Your task to perform on an android device: Open calendar and show me the first week of next month Image 0: 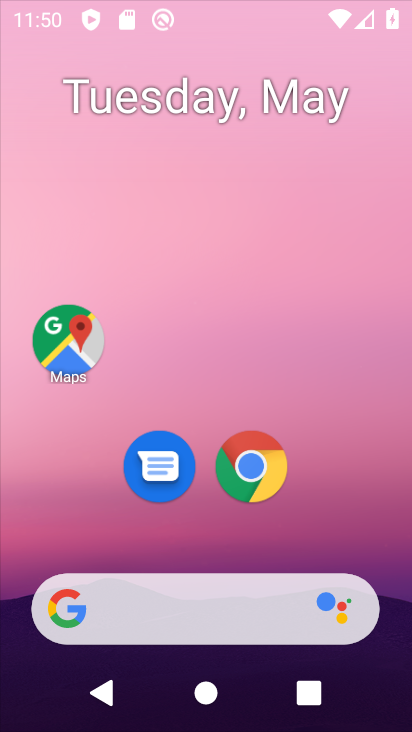
Step 0: press home button
Your task to perform on an android device: Open calendar and show me the first week of next month Image 1: 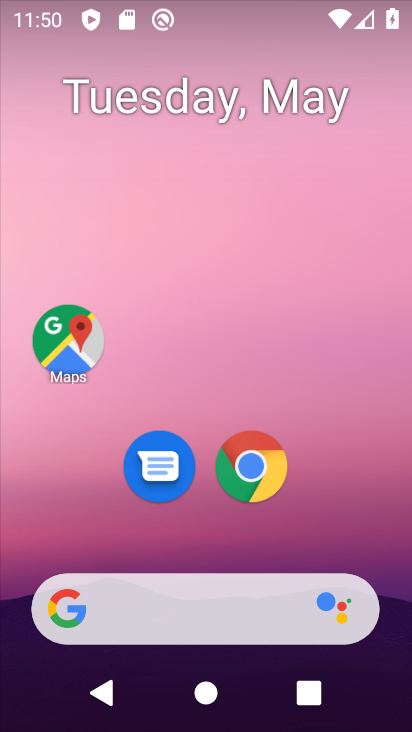
Step 1: drag from (209, 537) to (210, 55)
Your task to perform on an android device: Open calendar and show me the first week of next month Image 2: 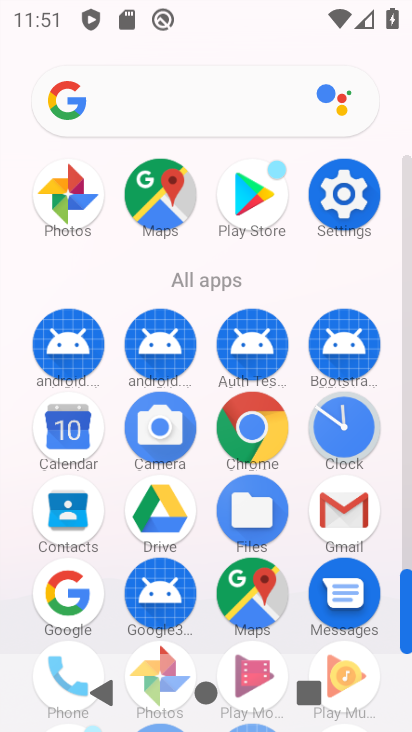
Step 2: click (67, 430)
Your task to perform on an android device: Open calendar and show me the first week of next month Image 3: 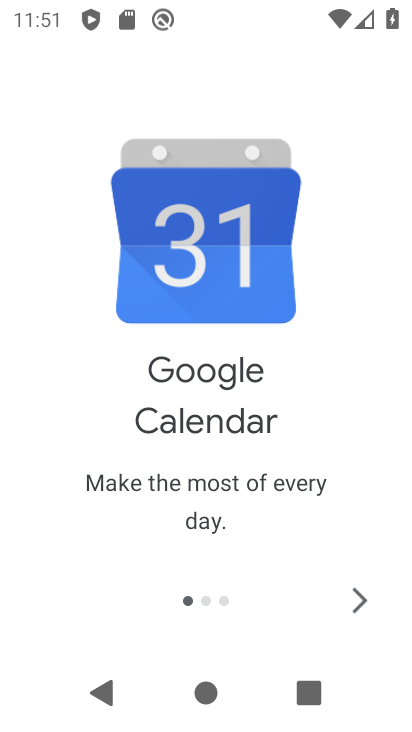
Step 3: click (351, 595)
Your task to perform on an android device: Open calendar and show me the first week of next month Image 4: 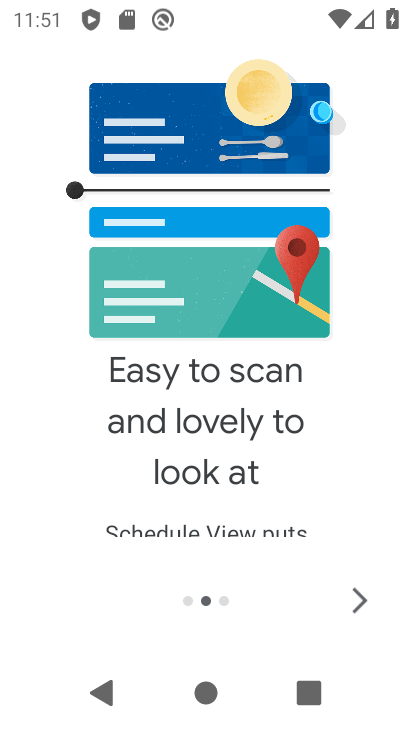
Step 4: click (348, 595)
Your task to perform on an android device: Open calendar and show me the first week of next month Image 5: 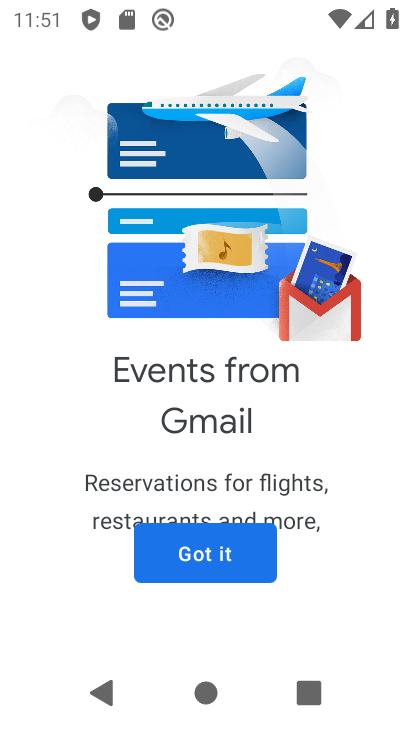
Step 5: click (214, 546)
Your task to perform on an android device: Open calendar and show me the first week of next month Image 6: 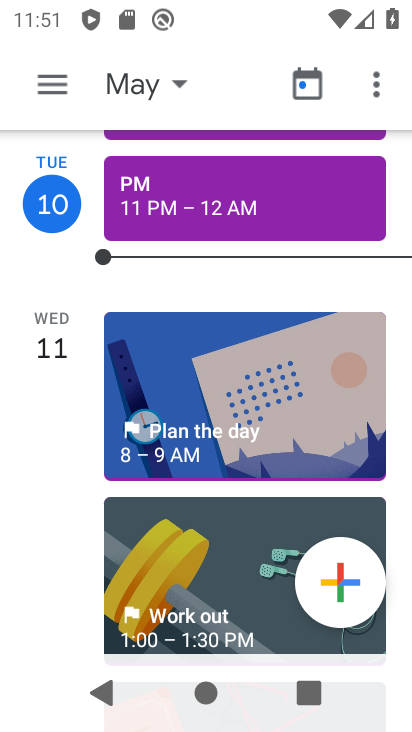
Step 6: click (58, 75)
Your task to perform on an android device: Open calendar and show me the first week of next month Image 7: 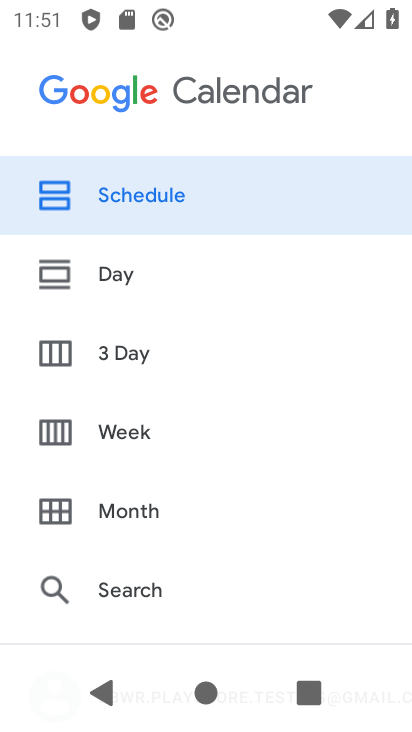
Step 7: click (94, 426)
Your task to perform on an android device: Open calendar and show me the first week of next month Image 8: 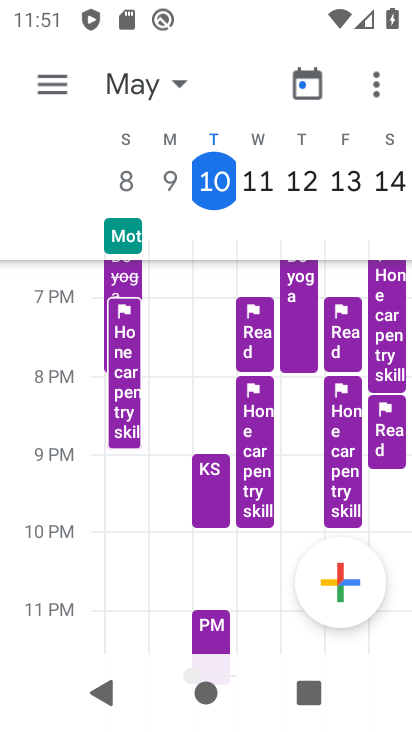
Step 8: drag from (385, 174) to (103, 200)
Your task to perform on an android device: Open calendar and show me the first week of next month Image 9: 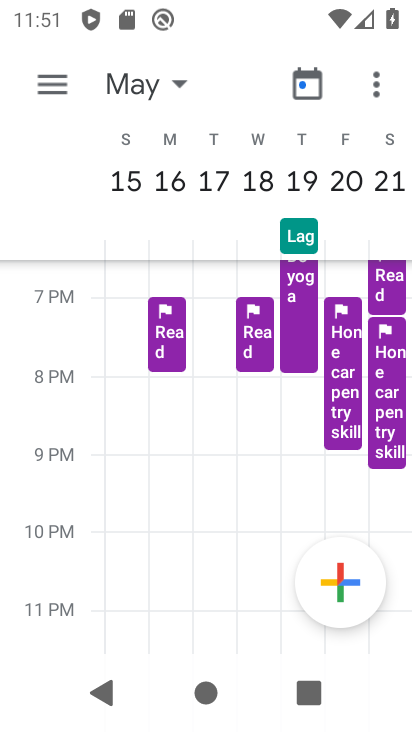
Step 9: drag from (387, 179) to (43, 177)
Your task to perform on an android device: Open calendar and show me the first week of next month Image 10: 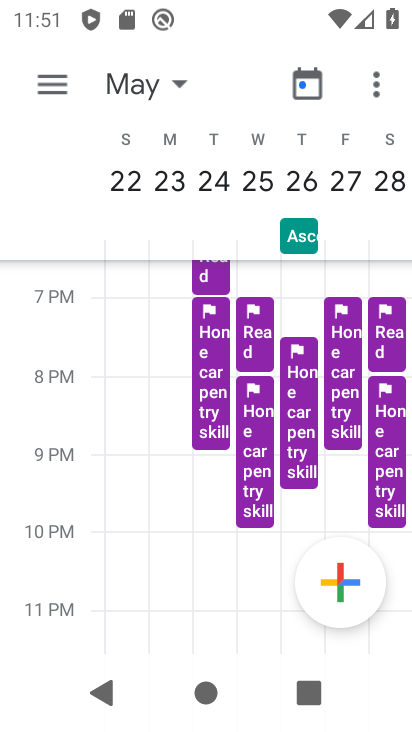
Step 10: drag from (385, 175) to (88, 173)
Your task to perform on an android device: Open calendar and show me the first week of next month Image 11: 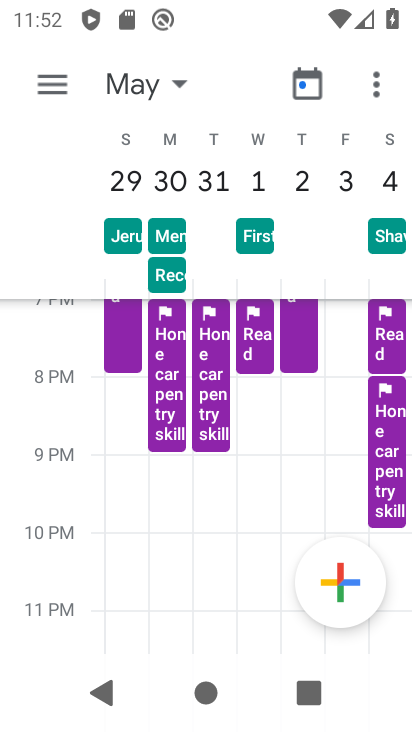
Step 11: click (251, 174)
Your task to perform on an android device: Open calendar and show me the first week of next month Image 12: 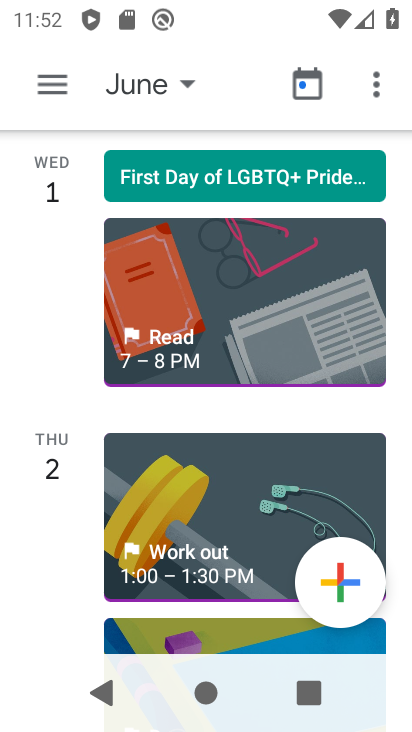
Step 12: task complete